Your task to perform on an android device: toggle data saver in the chrome app Image 0: 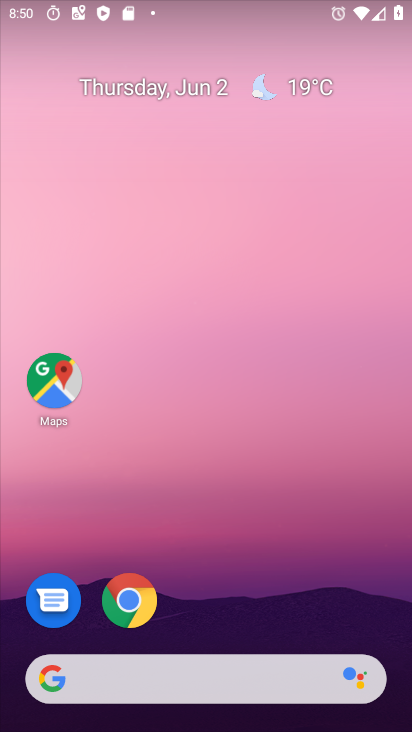
Step 0: drag from (359, 570) to (400, 292)
Your task to perform on an android device: toggle data saver in the chrome app Image 1: 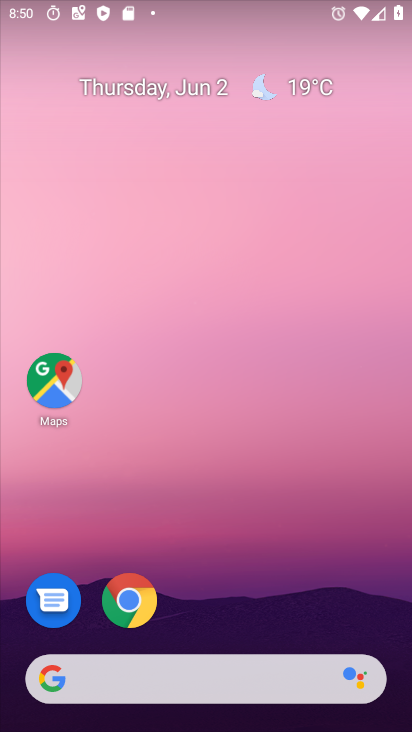
Step 1: drag from (314, 483) to (341, 143)
Your task to perform on an android device: toggle data saver in the chrome app Image 2: 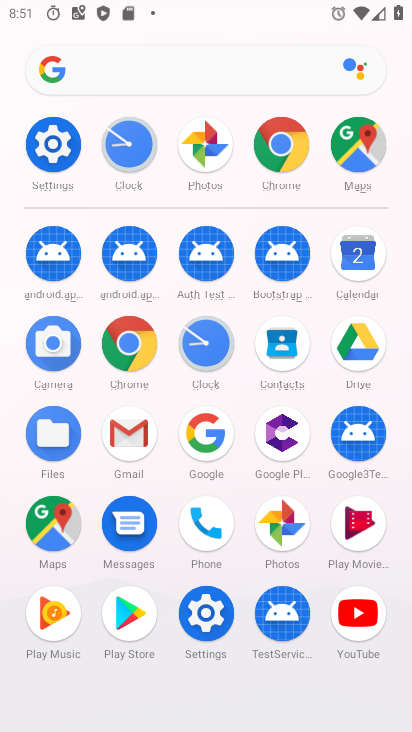
Step 2: click (132, 360)
Your task to perform on an android device: toggle data saver in the chrome app Image 3: 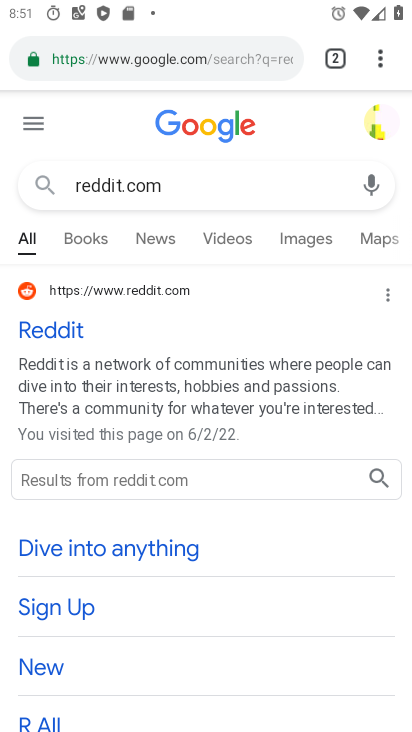
Step 3: click (380, 70)
Your task to perform on an android device: toggle data saver in the chrome app Image 4: 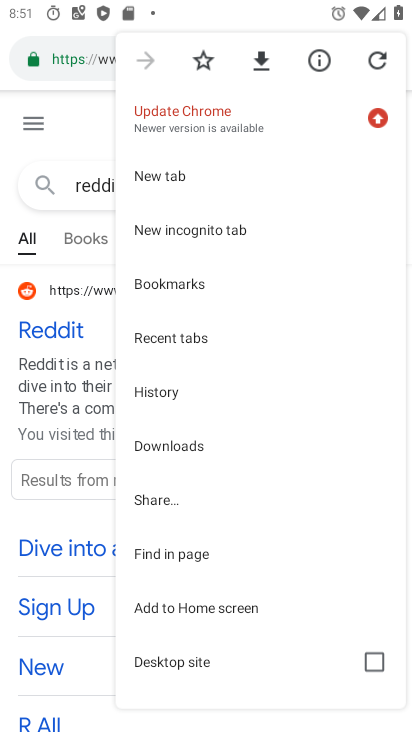
Step 4: drag from (309, 424) to (306, 308)
Your task to perform on an android device: toggle data saver in the chrome app Image 5: 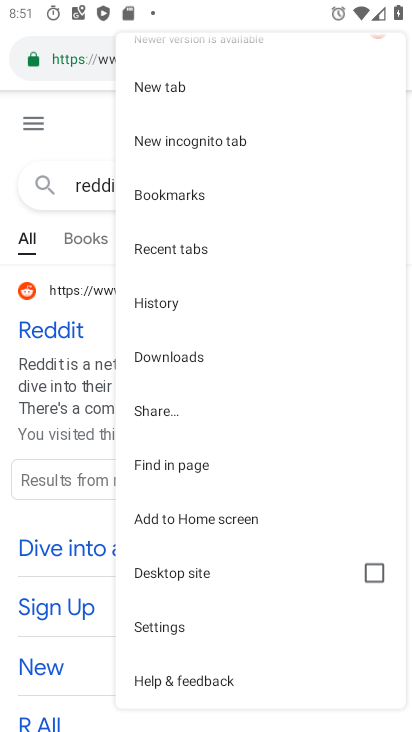
Step 5: drag from (294, 424) to (294, 377)
Your task to perform on an android device: toggle data saver in the chrome app Image 6: 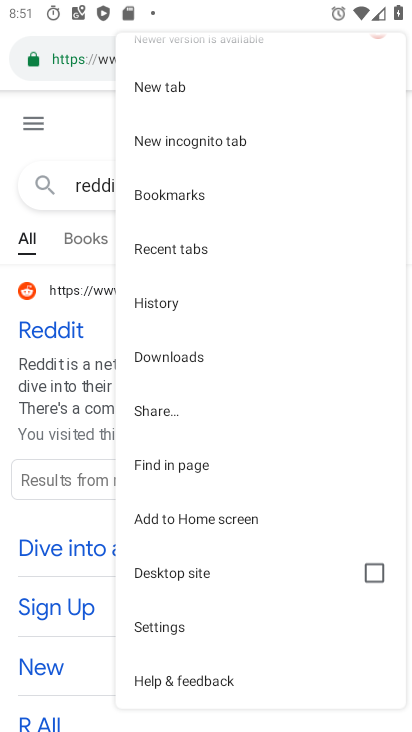
Step 6: drag from (315, 468) to (329, 394)
Your task to perform on an android device: toggle data saver in the chrome app Image 7: 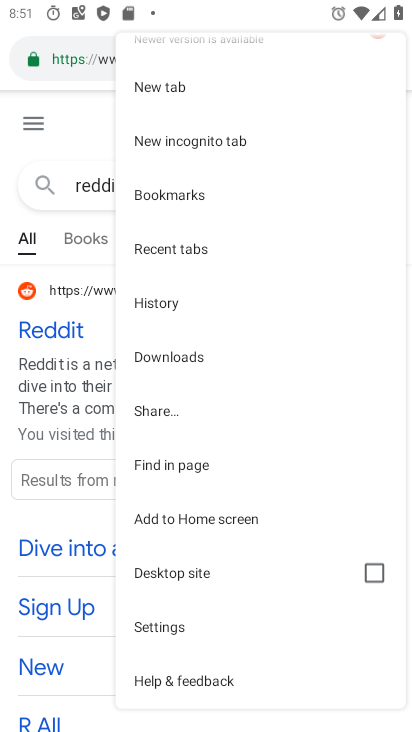
Step 7: click (206, 638)
Your task to perform on an android device: toggle data saver in the chrome app Image 8: 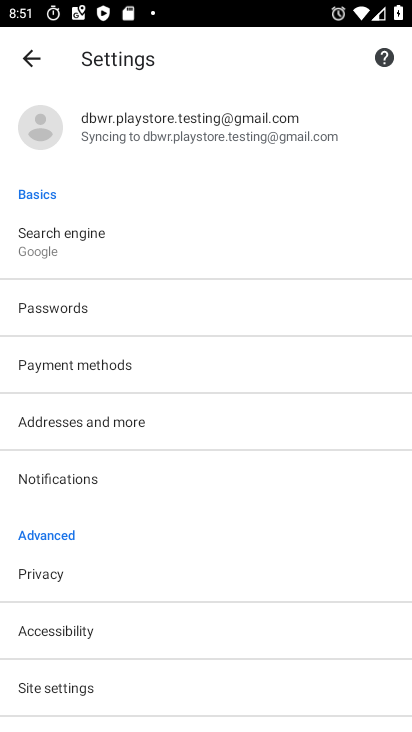
Step 8: drag from (277, 581) to (280, 499)
Your task to perform on an android device: toggle data saver in the chrome app Image 9: 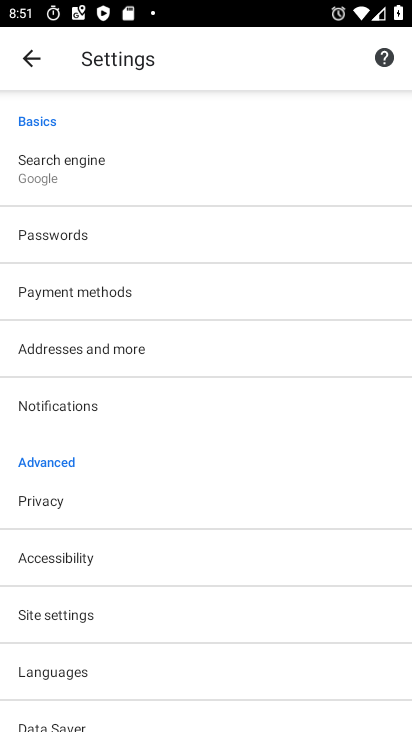
Step 9: drag from (298, 604) to (306, 520)
Your task to perform on an android device: toggle data saver in the chrome app Image 10: 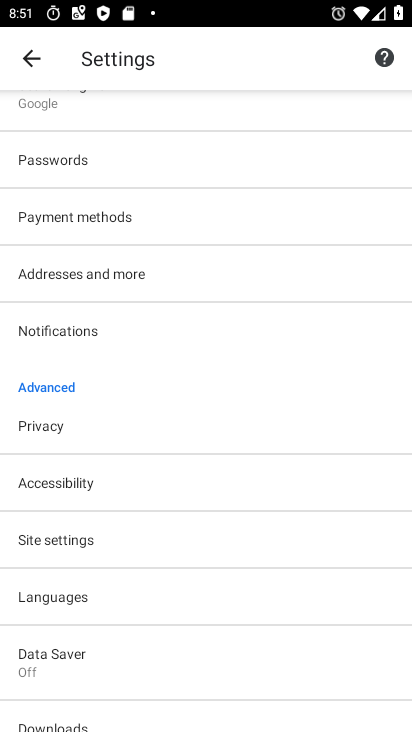
Step 10: drag from (317, 586) to (324, 481)
Your task to perform on an android device: toggle data saver in the chrome app Image 11: 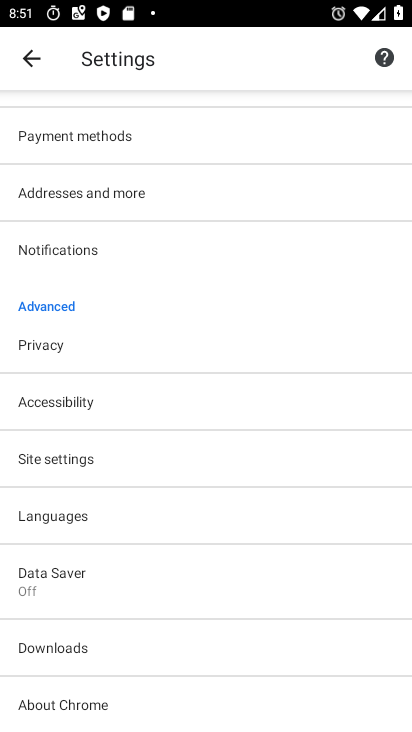
Step 11: click (205, 572)
Your task to perform on an android device: toggle data saver in the chrome app Image 12: 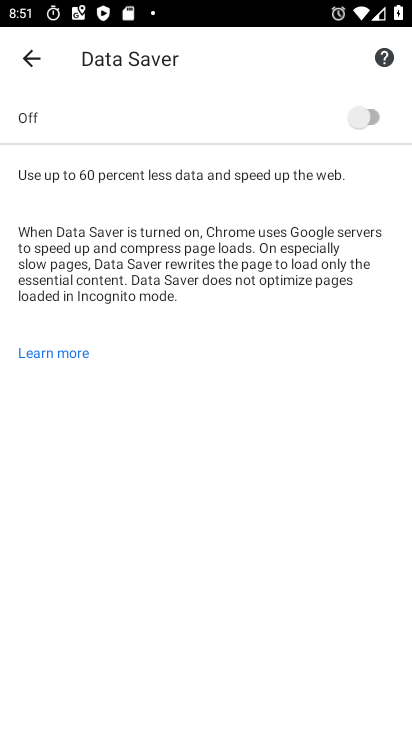
Step 12: click (354, 130)
Your task to perform on an android device: toggle data saver in the chrome app Image 13: 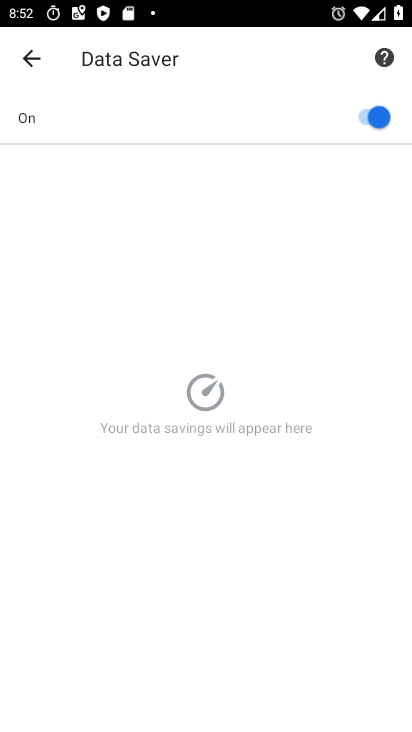
Step 13: task complete